Your task to perform on an android device: Open Google Image 0: 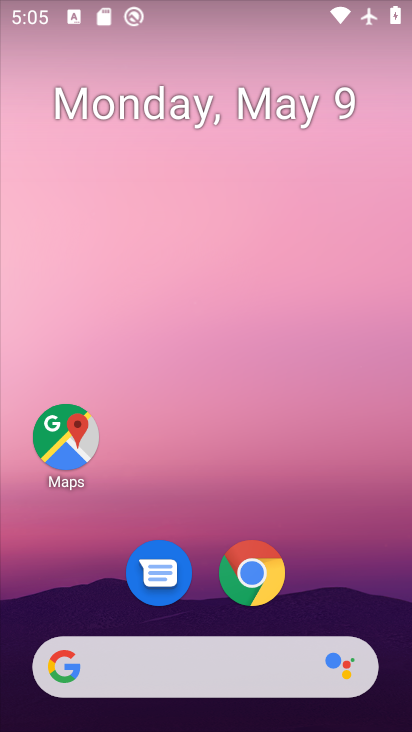
Step 0: click (249, 572)
Your task to perform on an android device: Open Google Image 1: 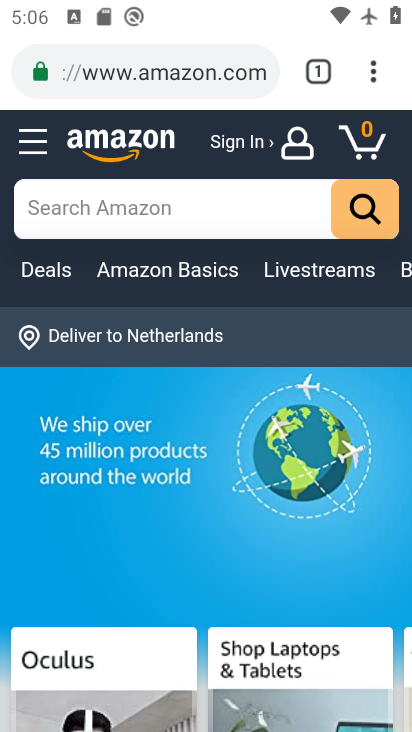
Step 1: task complete